Your task to perform on an android device: Is it going to rain today? Image 0: 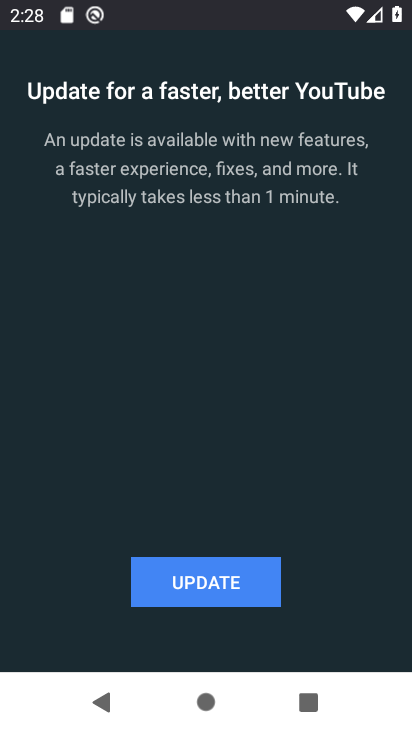
Step 0: press home button
Your task to perform on an android device: Is it going to rain today? Image 1: 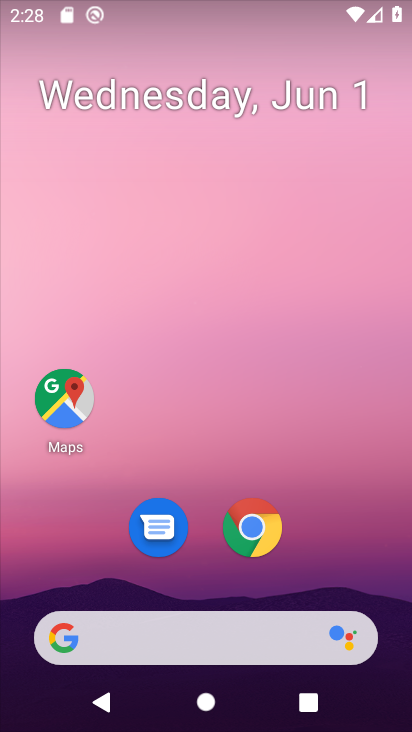
Step 1: click (222, 654)
Your task to perform on an android device: Is it going to rain today? Image 2: 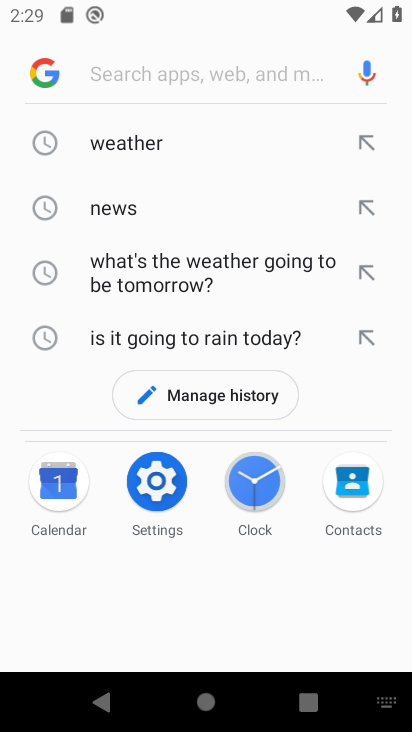
Step 2: click (154, 138)
Your task to perform on an android device: Is it going to rain today? Image 3: 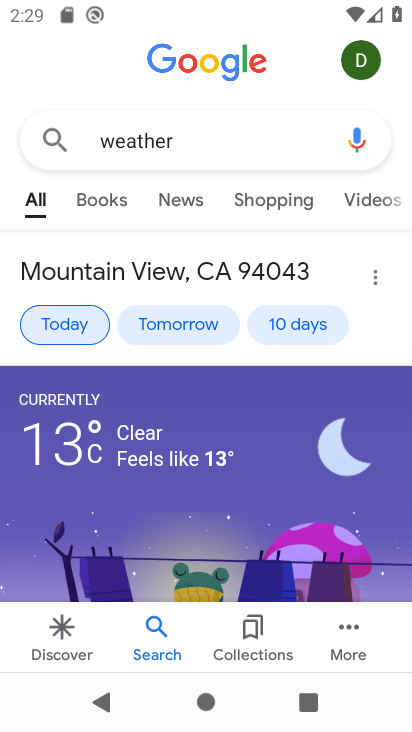
Step 3: task complete